Your task to perform on an android device: clear history in the chrome app Image 0: 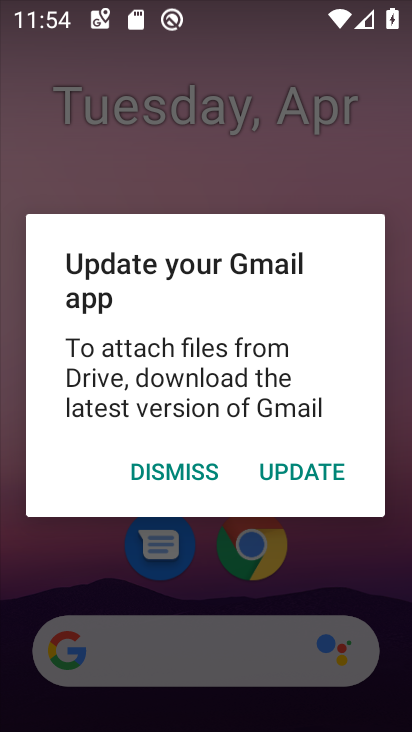
Step 0: click (382, 547)
Your task to perform on an android device: clear history in the chrome app Image 1: 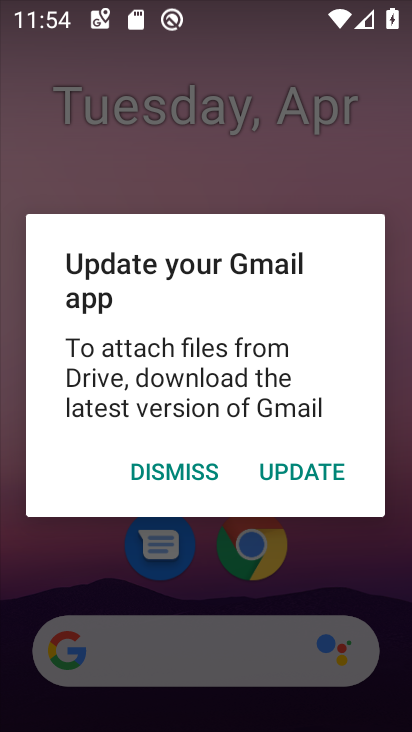
Step 1: press home button
Your task to perform on an android device: clear history in the chrome app Image 2: 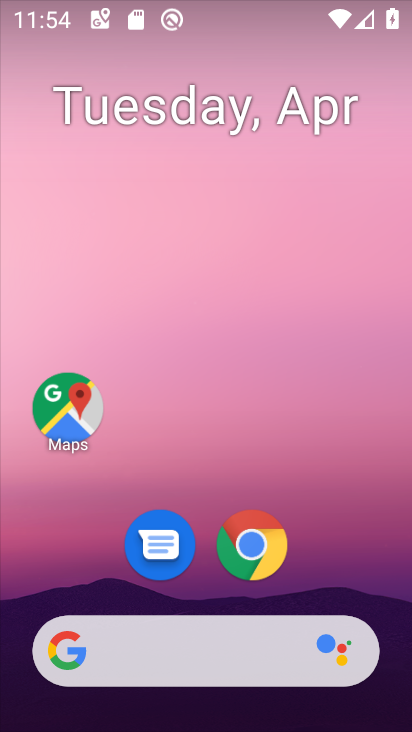
Step 2: click (260, 549)
Your task to perform on an android device: clear history in the chrome app Image 3: 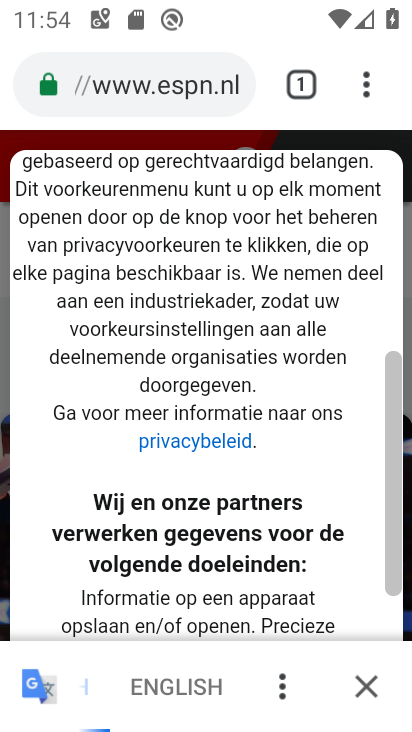
Step 3: drag from (355, 88) to (105, 453)
Your task to perform on an android device: clear history in the chrome app Image 4: 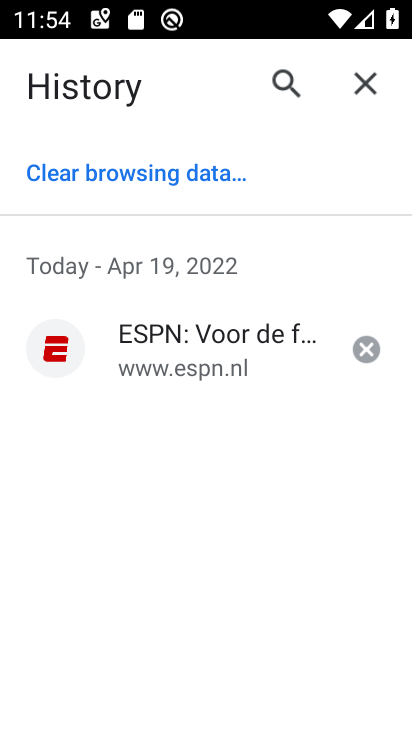
Step 4: click (94, 177)
Your task to perform on an android device: clear history in the chrome app Image 5: 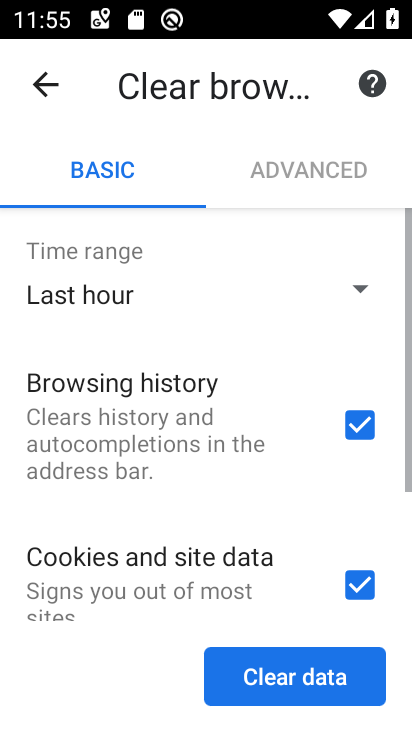
Step 5: drag from (195, 505) to (167, 189)
Your task to perform on an android device: clear history in the chrome app Image 6: 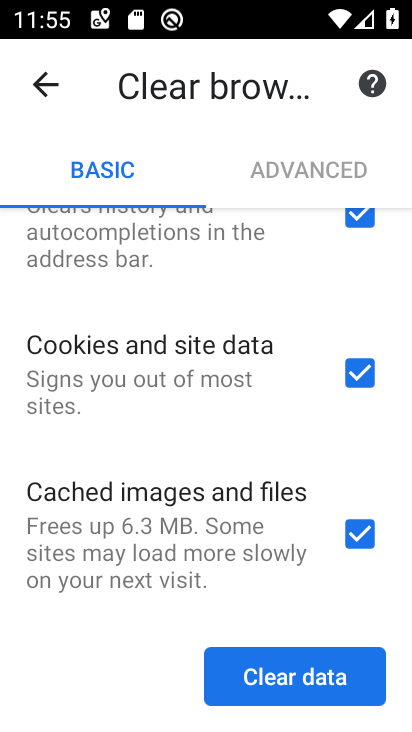
Step 6: drag from (196, 288) to (229, 583)
Your task to perform on an android device: clear history in the chrome app Image 7: 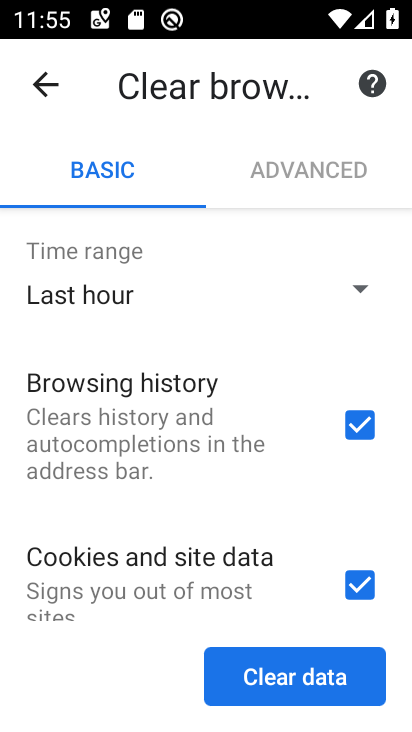
Step 7: click (367, 583)
Your task to perform on an android device: clear history in the chrome app Image 8: 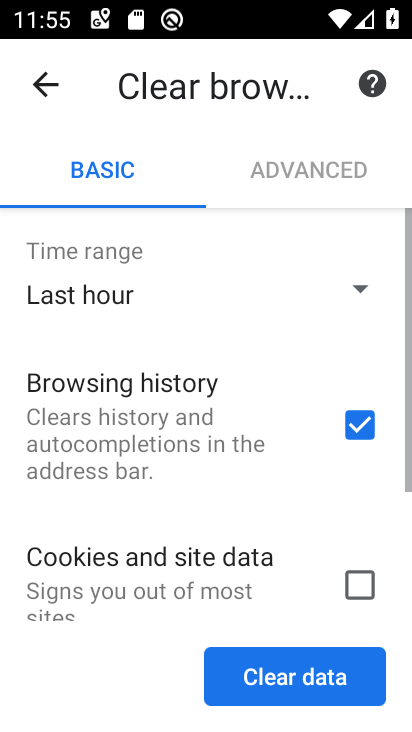
Step 8: drag from (220, 595) to (231, 292)
Your task to perform on an android device: clear history in the chrome app Image 9: 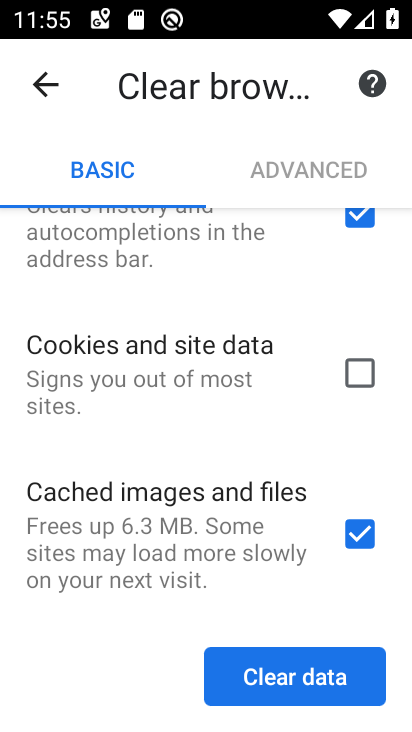
Step 9: click (370, 523)
Your task to perform on an android device: clear history in the chrome app Image 10: 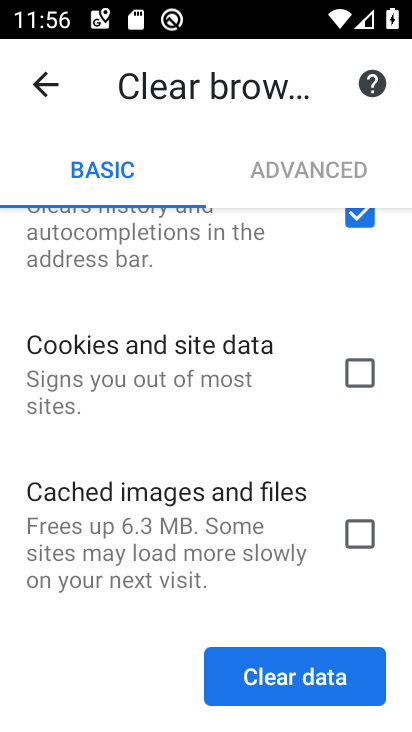
Step 10: click (342, 698)
Your task to perform on an android device: clear history in the chrome app Image 11: 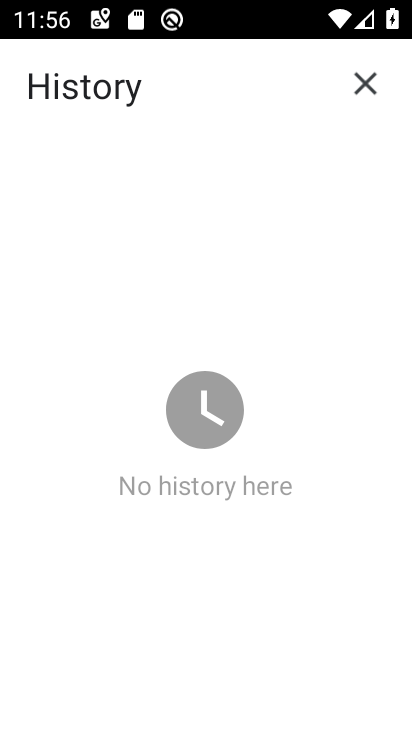
Step 11: task complete